Your task to perform on an android device: Go to Amazon Image 0: 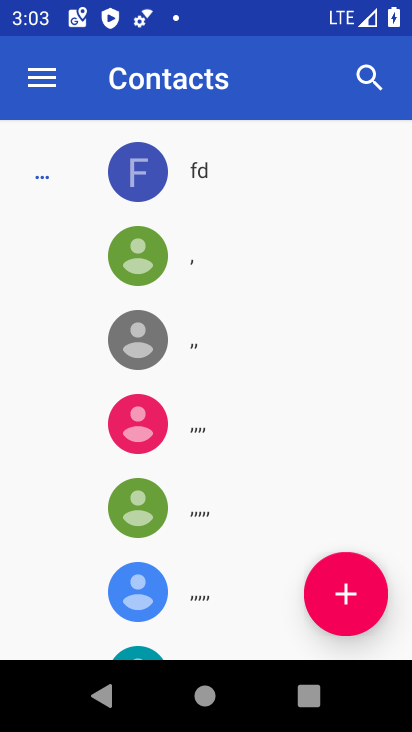
Step 0: press home button
Your task to perform on an android device: Go to Amazon Image 1: 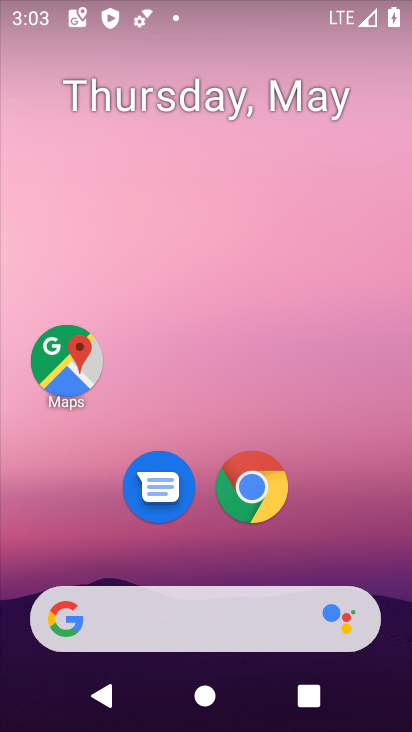
Step 1: drag from (166, 520) to (195, 29)
Your task to perform on an android device: Go to Amazon Image 2: 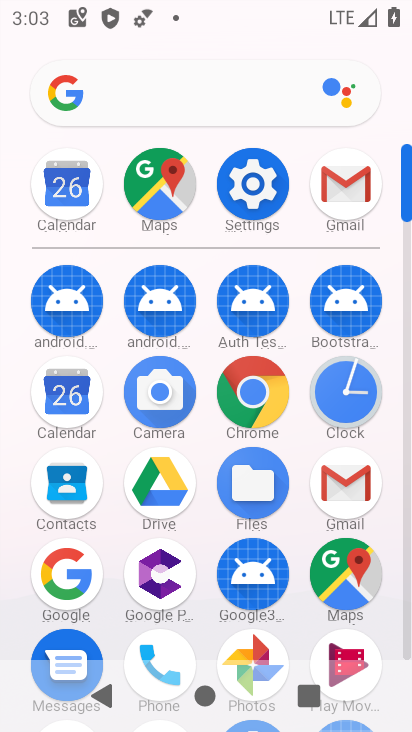
Step 2: click (244, 392)
Your task to perform on an android device: Go to Amazon Image 3: 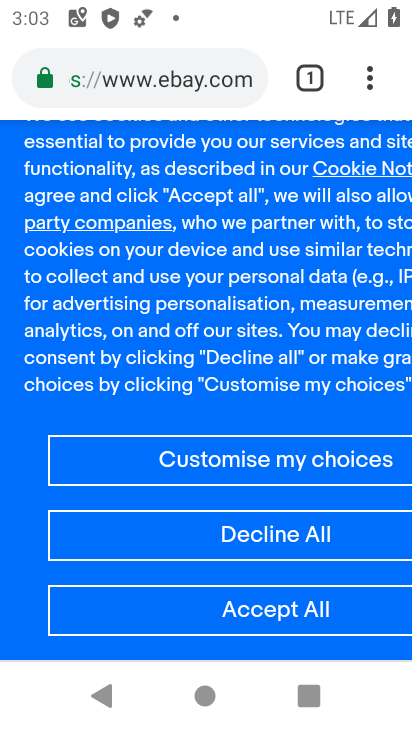
Step 3: click (229, 81)
Your task to perform on an android device: Go to Amazon Image 4: 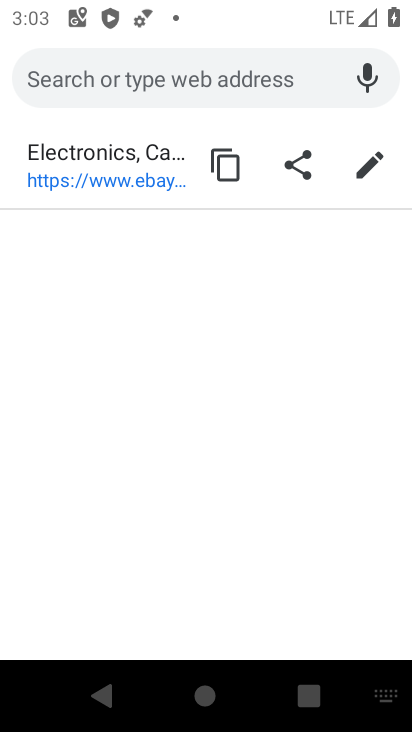
Step 4: type "amazon"
Your task to perform on an android device: Go to Amazon Image 5: 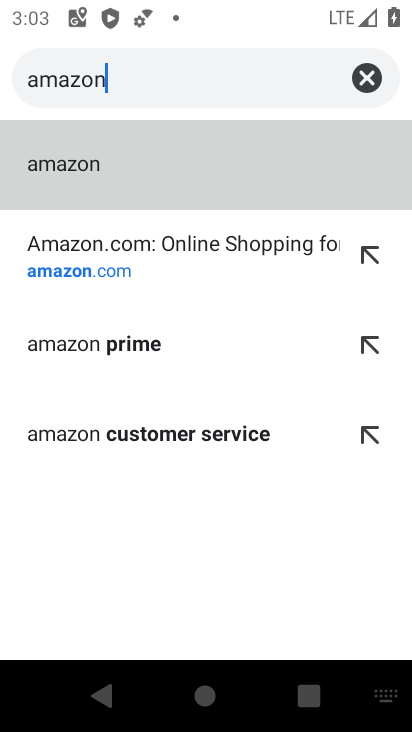
Step 5: click (285, 282)
Your task to perform on an android device: Go to Amazon Image 6: 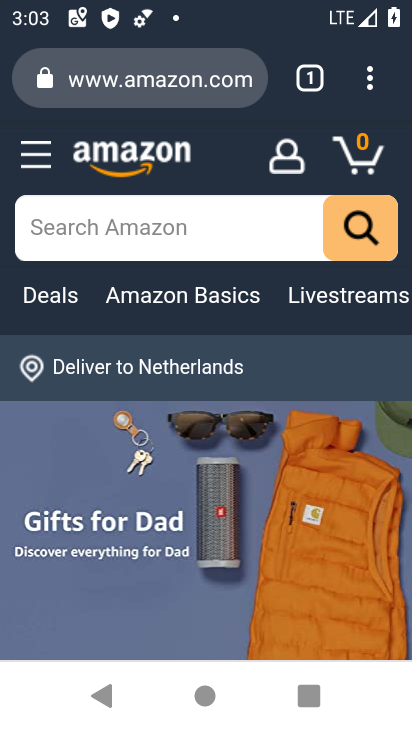
Step 6: task complete